Your task to perform on an android device: Open Chrome and go to settings Image 0: 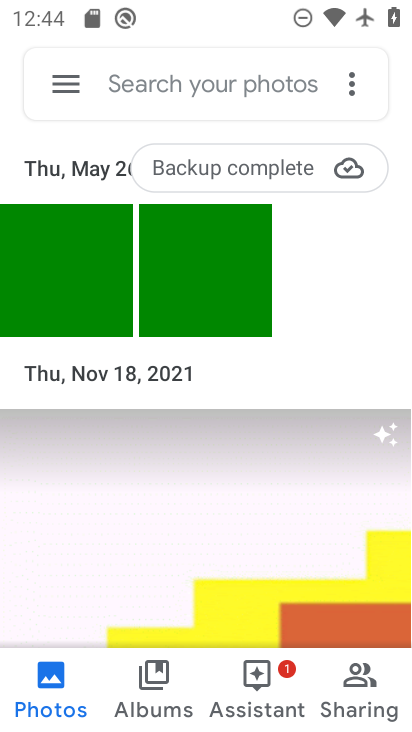
Step 0: press home button
Your task to perform on an android device: Open Chrome and go to settings Image 1: 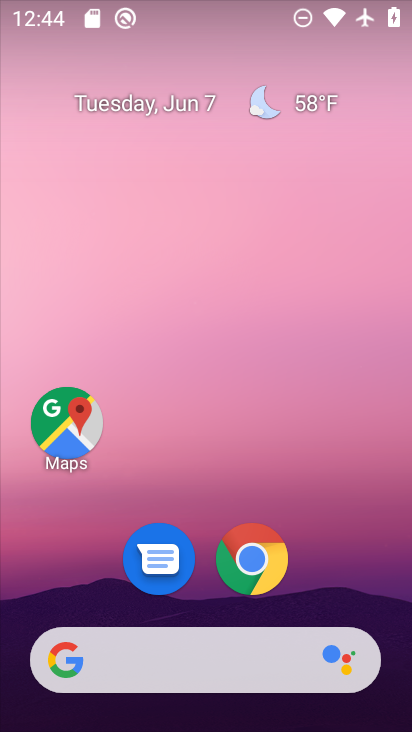
Step 1: click (255, 561)
Your task to perform on an android device: Open Chrome and go to settings Image 2: 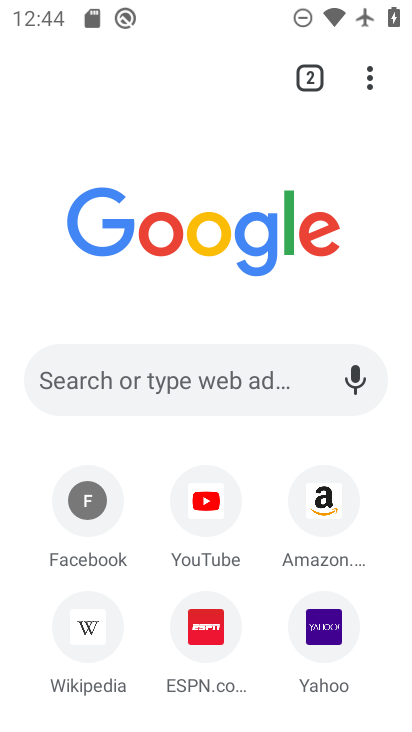
Step 2: click (366, 83)
Your task to perform on an android device: Open Chrome and go to settings Image 3: 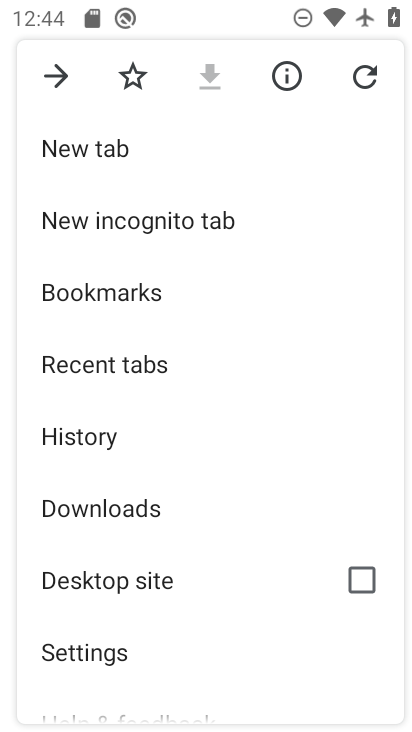
Step 3: click (90, 654)
Your task to perform on an android device: Open Chrome and go to settings Image 4: 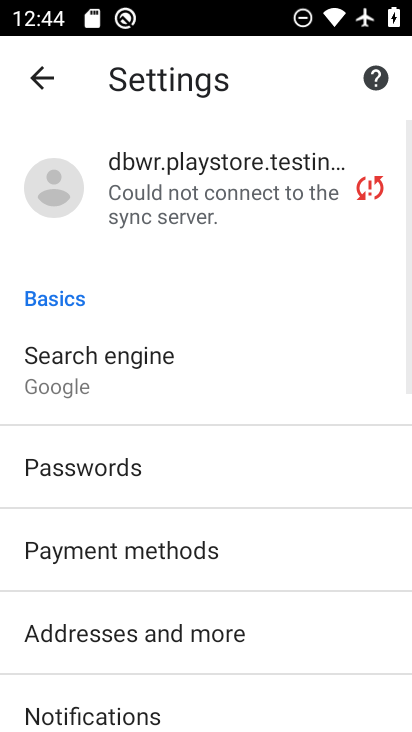
Step 4: task complete